Your task to perform on an android device: Go to Maps Image 0: 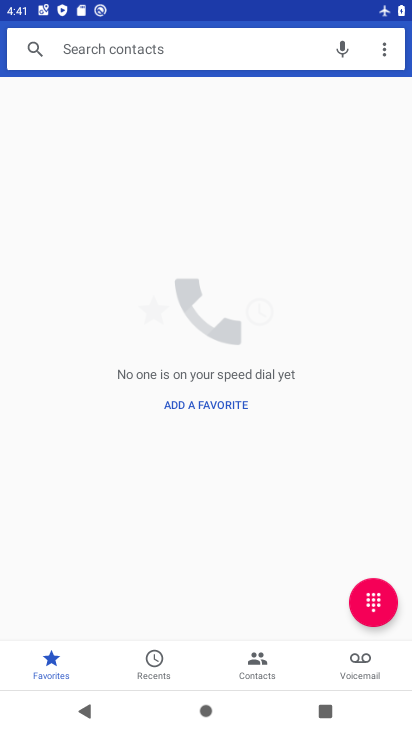
Step 0: press back button
Your task to perform on an android device: Go to Maps Image 1: 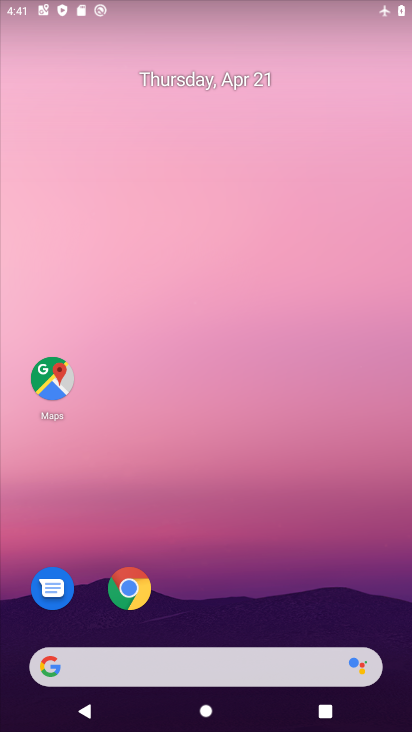
Step 1: click (54, 379)
Your task to perform on an android device: Go to Maps Image 2: 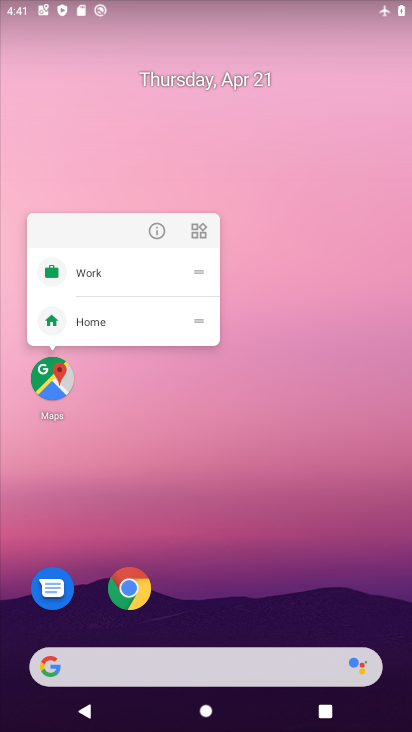
Step 2: click (54, 379)
Your task to perform on an android device: Go to Maps Image 3: 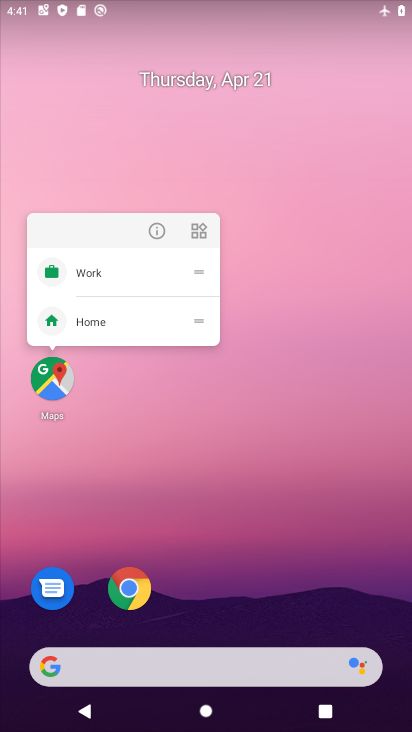
Step 3: click (51, 381)
Your task to perform on an android device: Go to Maps Image 4: 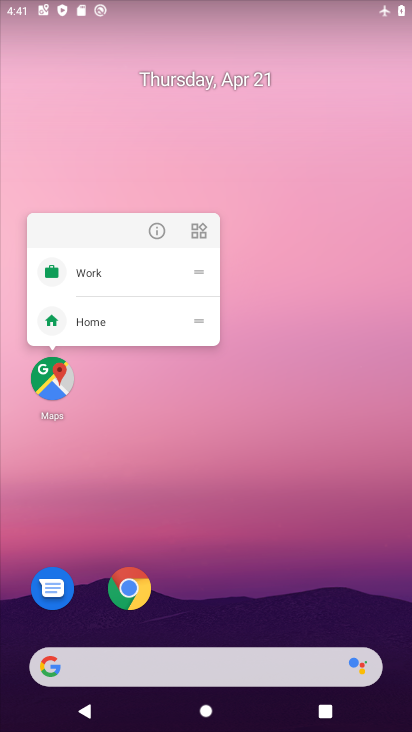
Step 4: click (52, 381)
Your task to perform on an android device: Go to Maps Image 5: 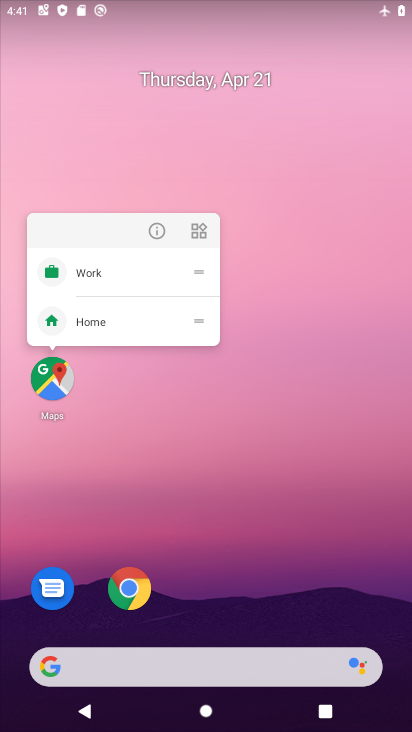
Step 5: click (49, 375)
Your task to perform on an android device: Go to Maps Image 6: 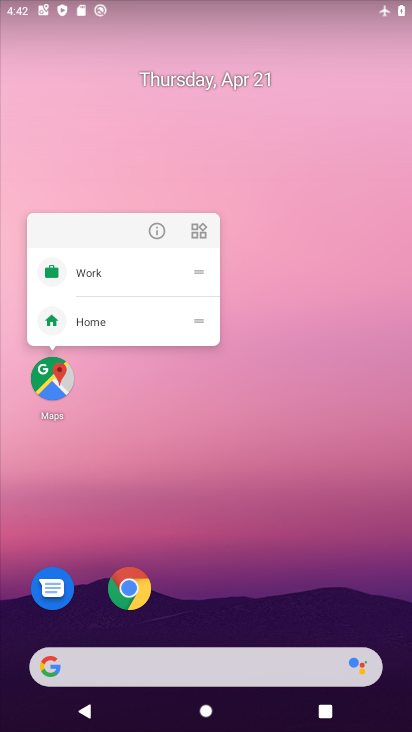
Step 6: click (49, 374)
Your task to perform on an android device: Go to Maps Image 7: 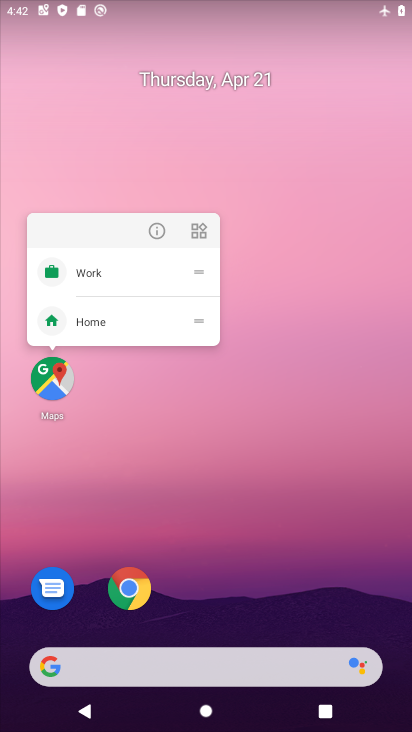
Step 7: click (62, 381)
Your task to perform on an android device: Go to Maps Image 8: 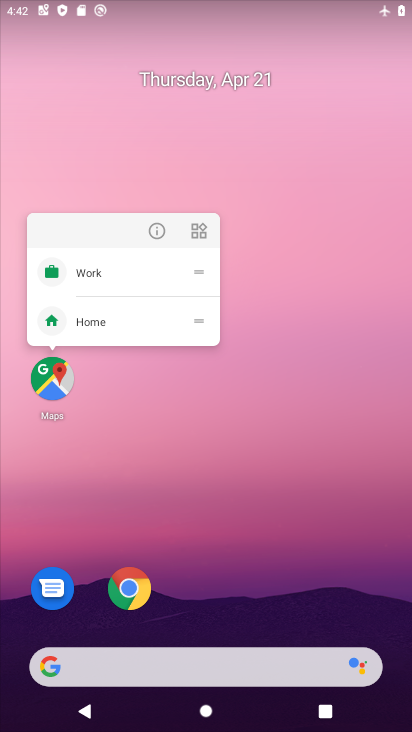
Step 8: click (40, 384)
Your task to perform on an android device: Go to Maps Image 9: 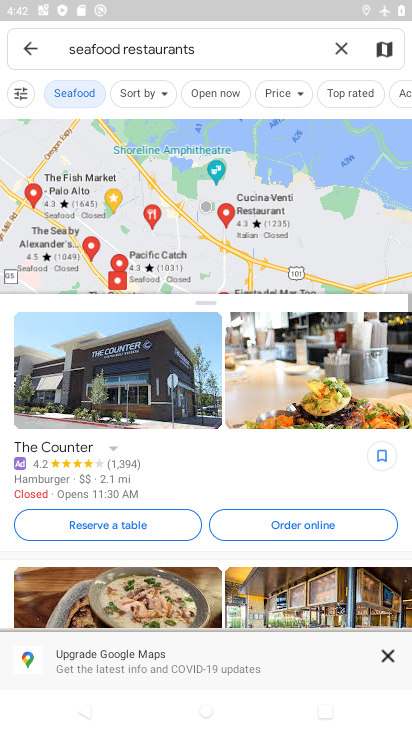
Step 9: task complete